Your task to perform on an android device: Open privacy settings Image 0: 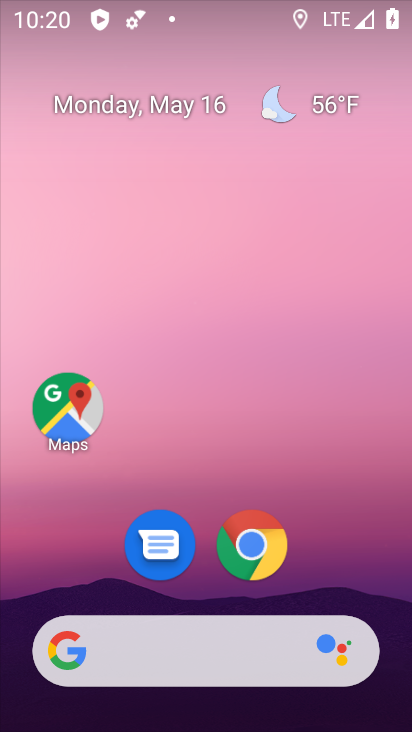
Step 0: drag from (158, 605) to (183, 4)
Your task to perform on an android device: Open privacy settings Image 1: 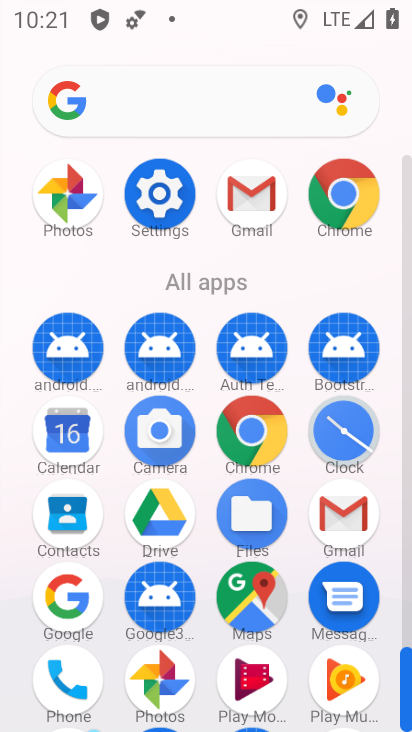
Step 1: click (140, 191)
Your task to perform on an android device: Open privacy settings Image 2: 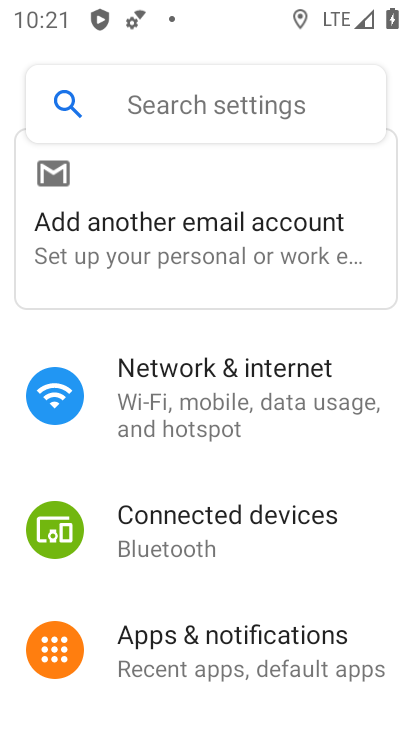
Step 2: drag from (176, 562) to (178, 217)
Your task to perform on an android device: Open privacy settings Image 3: 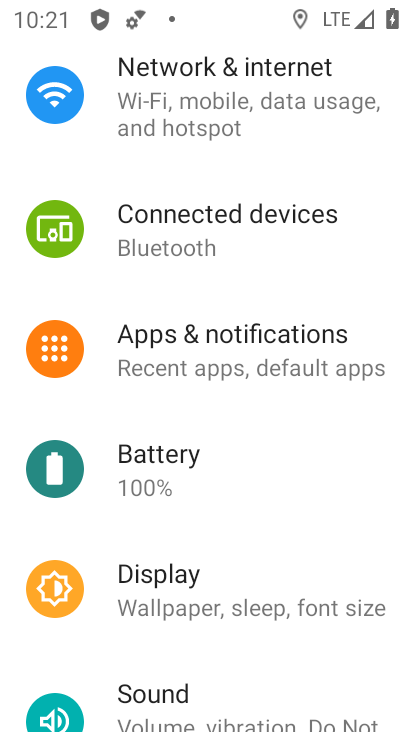
Step 3: drag from (186, 586) to (159, 242)
Your task to perform on an android device: Open privacy settings Image 4: 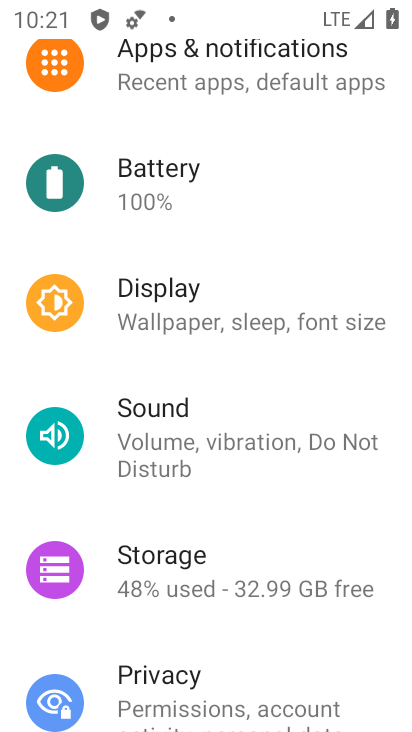
Step 4: click (157, 653)
Your task to perform on an android device: Open privacy settings Image 5: 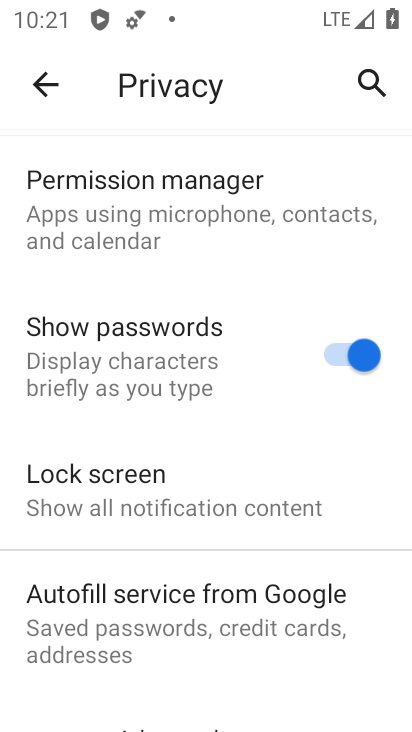
Step 5: task complete